Your task to perform on an android device: turn on airplane mode Image 0: 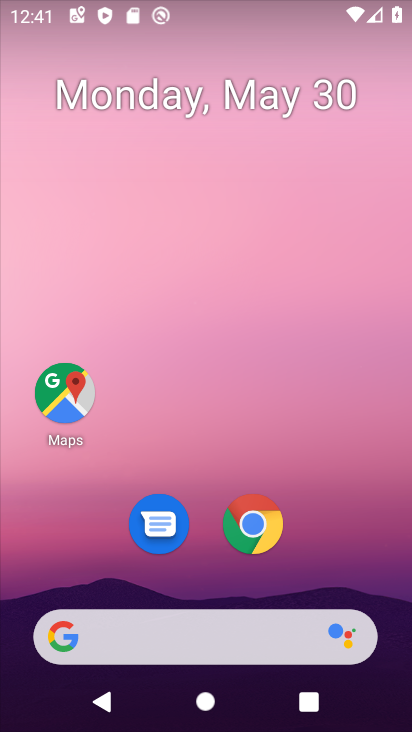
Step 0: drag from (269, 471) to (296, 1)
Your task to perform on an android device: turn on airplane mode Image 1: 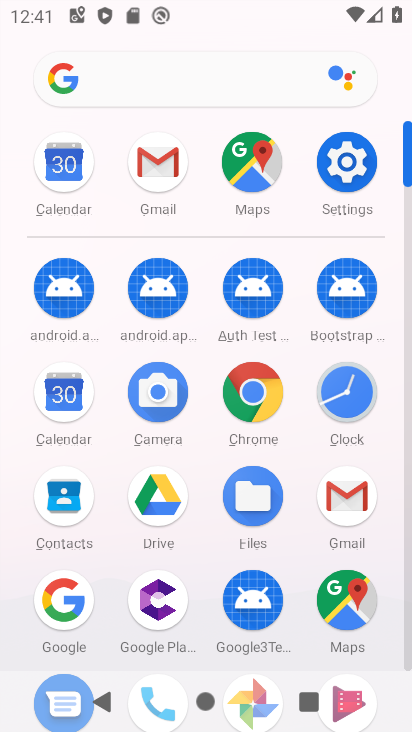
Step 1: click (349, 170)
Your task to perform on an android device: turn on airplane mode Image 2: 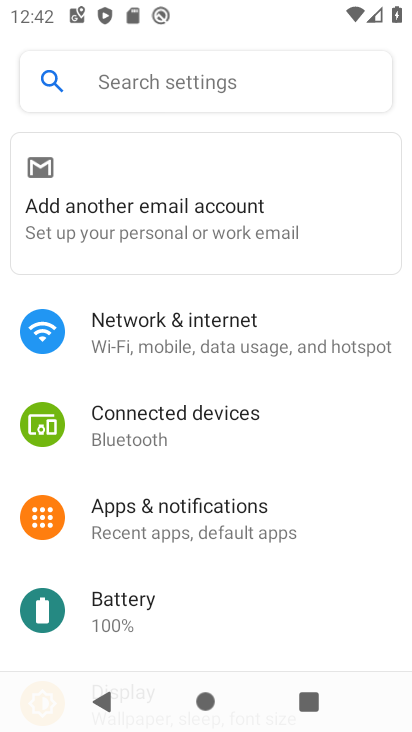
Step 2: click (285, 327)
Your task to perform on an android device: turn on airplane mode Image 3: 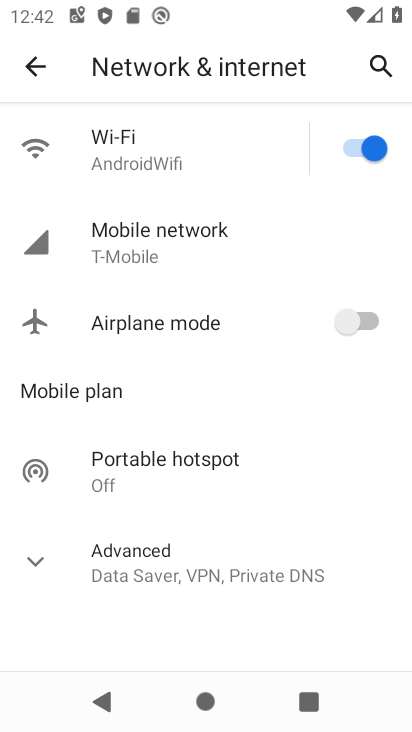
Step 3: click (359, 316)
Your task to perform on an android device: turn on airplane mode Image 4: 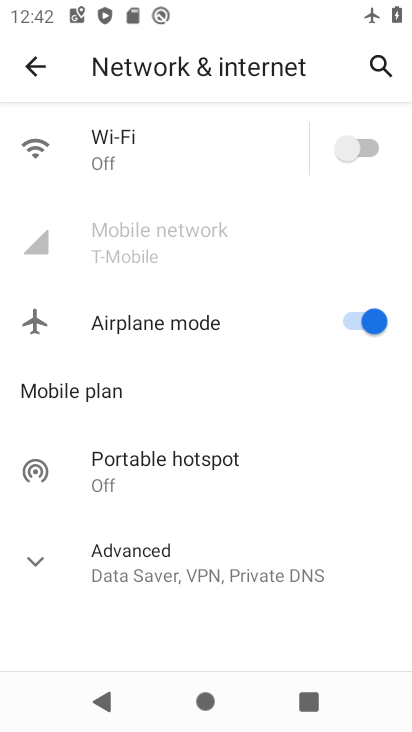
Step 4: task complete